Your task to perform on an android device: Turn off the flashlight Image 0: 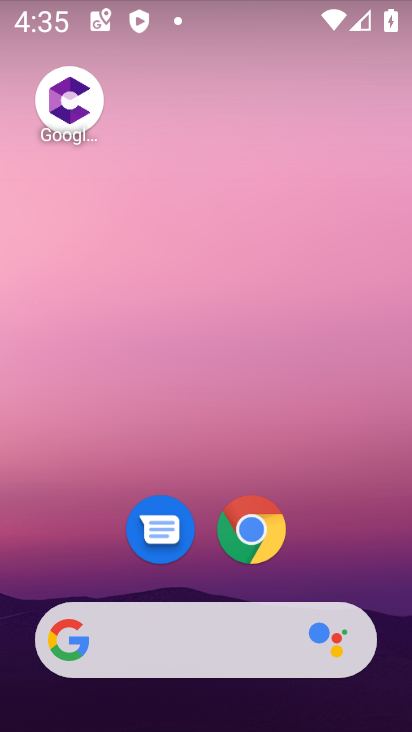
Step 0: drag from (322, 558) to (247, 183)
Your task to perform on an android device: Turn off the flashlight Image 1: 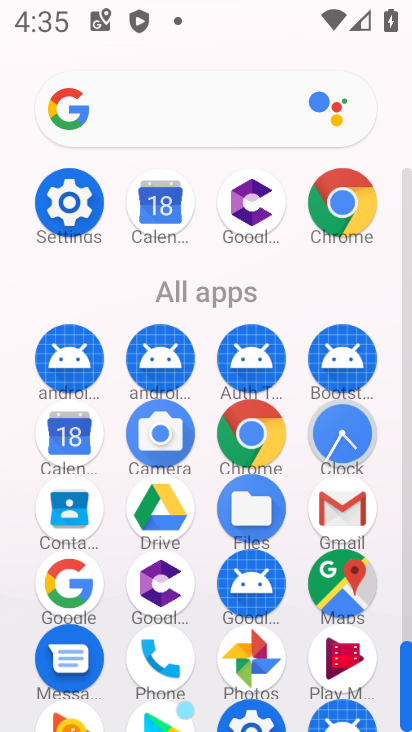
Step 1: click (73, 202)
Your task to perform on an android device: Turn off the flashlight Image 2: 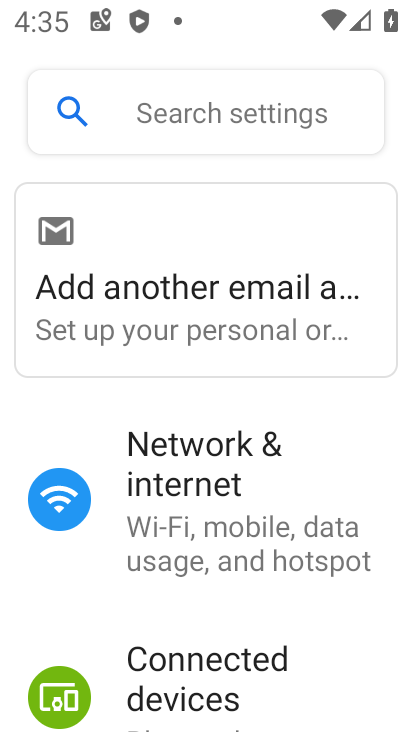
Step 2: drag from (143, 534) to (229, 343)
Your task to perform on an android device: Turn off the flashlight Image 3: 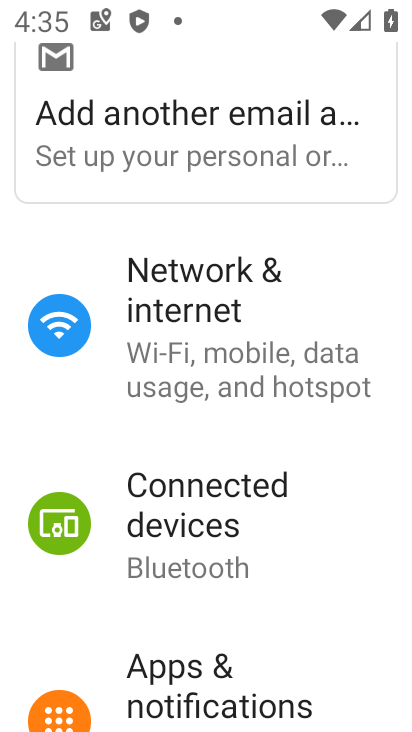
Step 3: drag from (162, 541) to (193, 360)
Your task to perform on an android device: Turn off the flashlight Image 4: 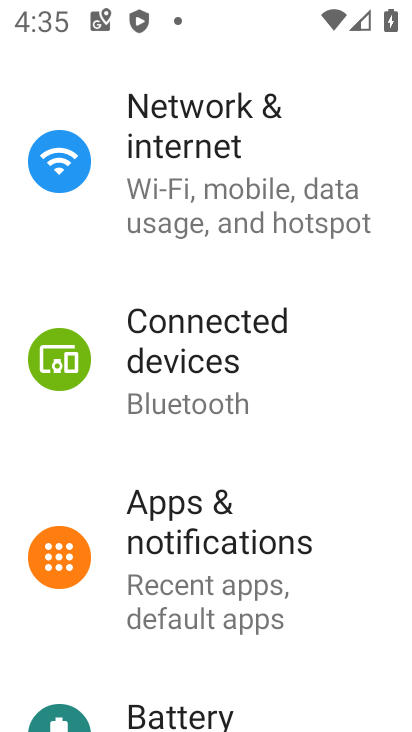
Step 4: drag from (150, 559) to (220, 464)
Your task to perform on an android device: Turn off the flashlight Image 5: 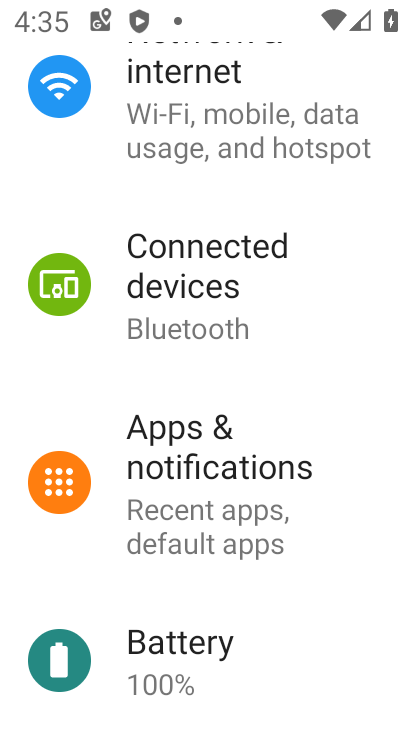
Step 5: drag from (250, 582) to (263, 479)
Your task to perform on an android device: Turn off the flashlight Image 6: 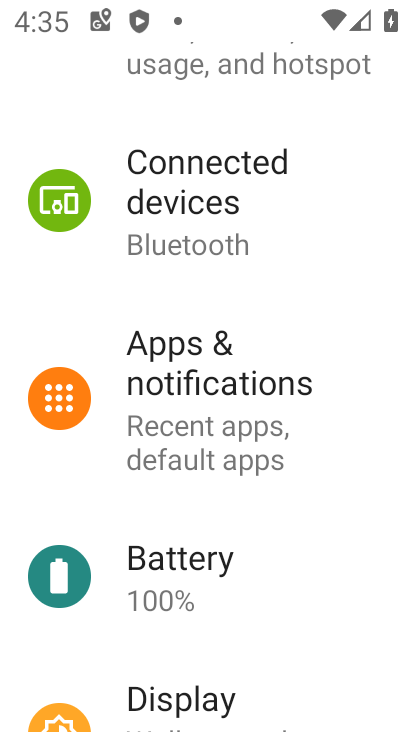
Step 6: drag from (154, 578) to (209, 443)
Your task to perform on an android device: Turn off the flashlight Image 7: 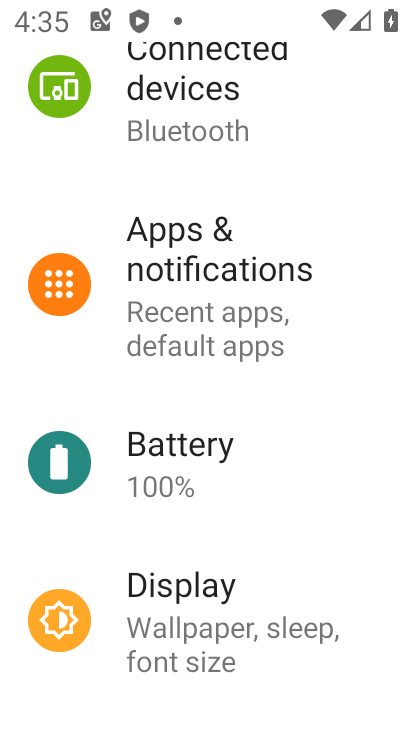
Step 7: click (185, 572)
Your task to perform on an android device: Turn off the flashlight Image 8: 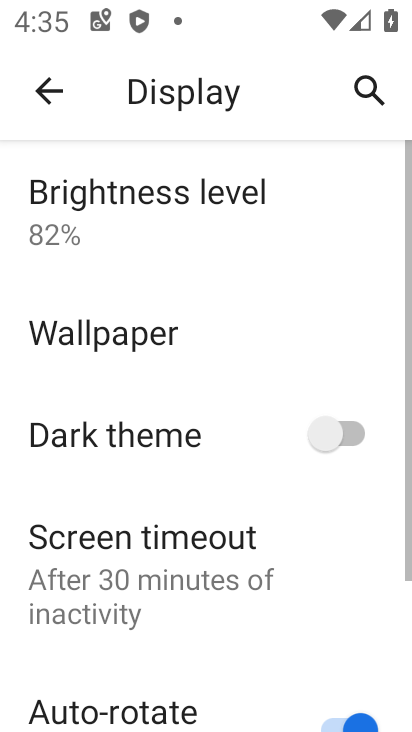
Step 8: drag from (187, 572) to (218, 282)
Your task to perform on an android device: Turn off the flashlight Image 9: 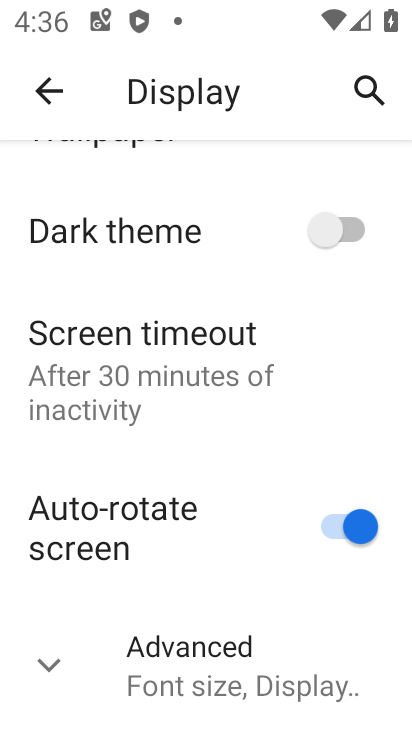
Step 9: click (167, 645)
Your task to perform on an android device: Turn off the flashlight Image 10: 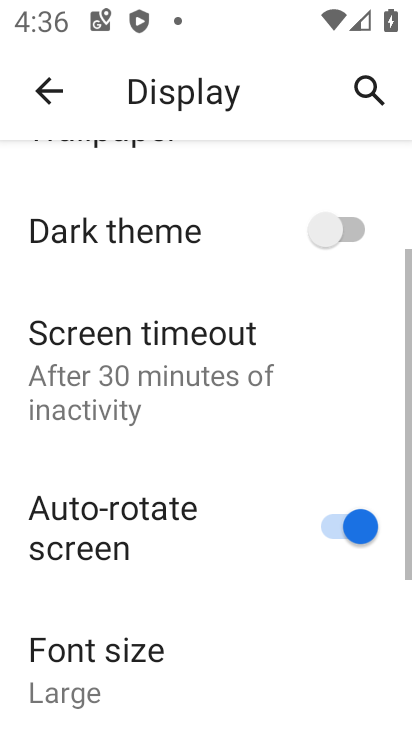
Step 10: task complete